Your task to perform on an android device: Go to display settings Image 0: 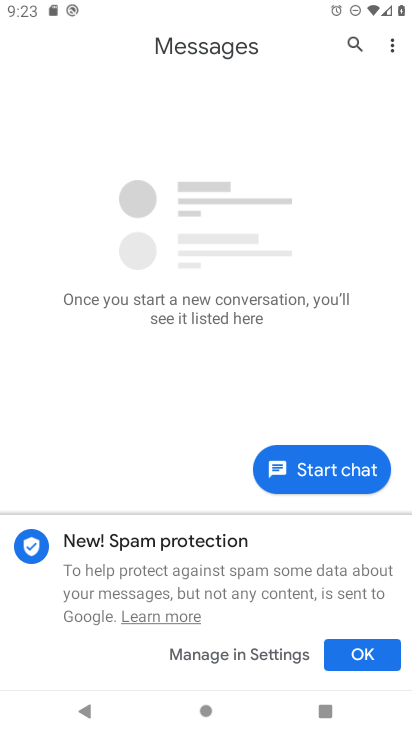
Step 0: press home button
Your task to perform on an android device: Go to display settings Image 1: 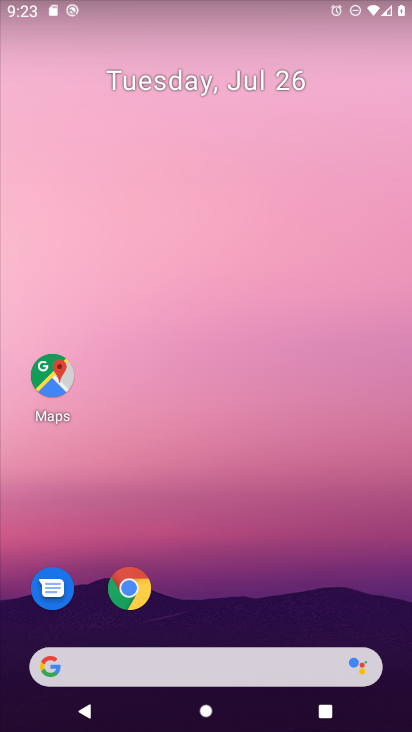
Step 1: drag from (196, 630) to (367, 53)
Your task to perform on an android device: Go to display settings Image 2: 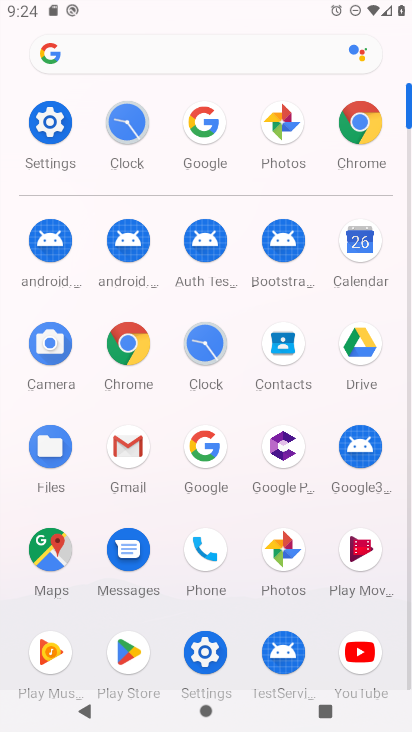
Step 2: click (54, 146)
Your task to perform on an android device: Go to display settings Image 3: 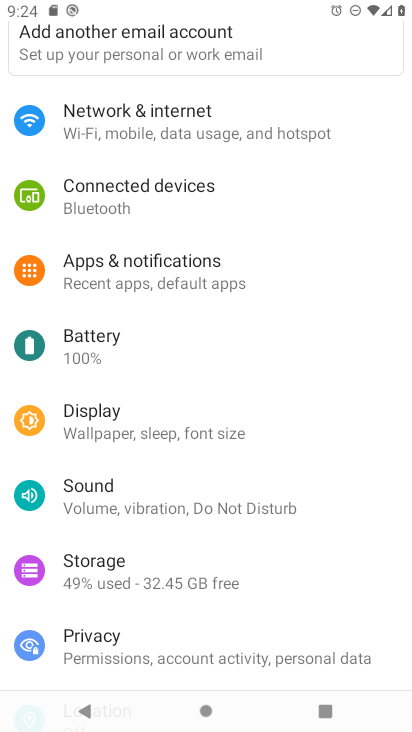
Step 3: click (107, 404)
Your task to perform on an android device: Go to display settings Image 4: 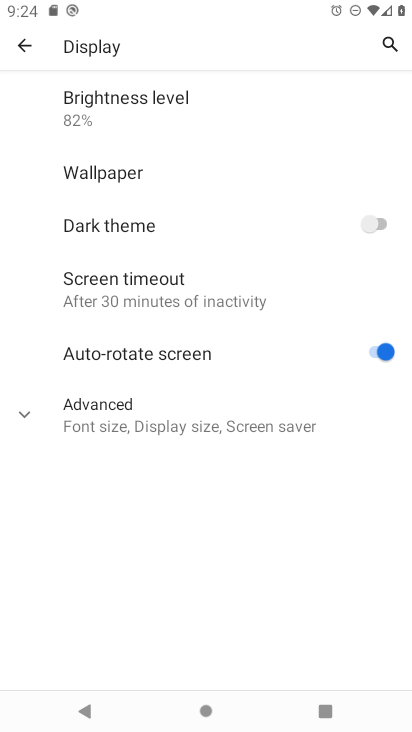
Step 4: task complete